Your task to perform on an android device: Open Android settings Image 0: 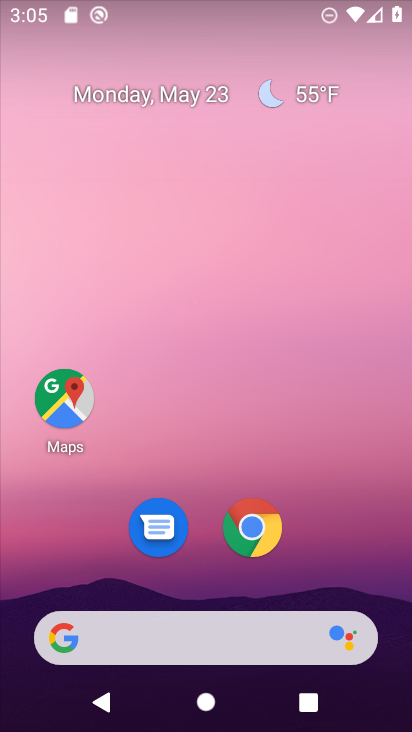
Step 0: drag from (222, 576) to (246, 83)
Your task to perform on an android device: Open Android settings Image 1: 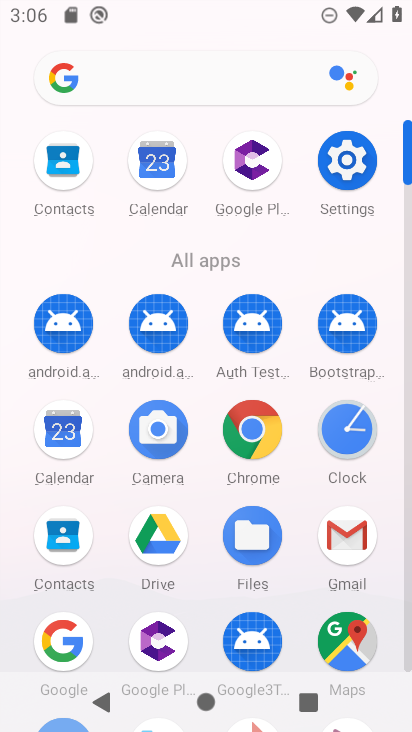
Step 1: click (349, 162)
Your task to perform on an android device: Open Android settings Image 2: 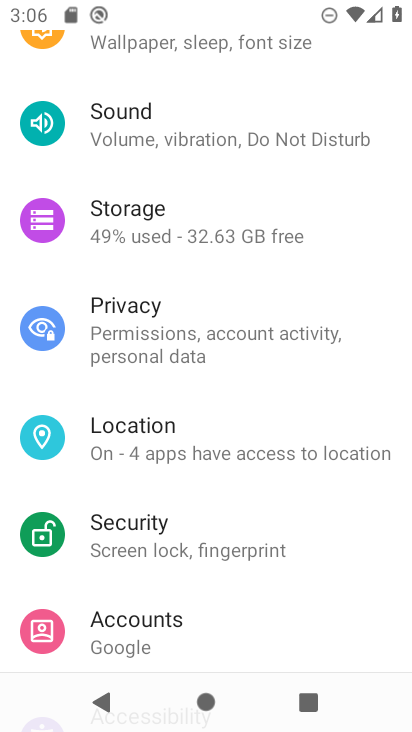
Step 2: drag from (205, 625) to (213, 81)
Your task to perform on an android device: Open Android settings Image 3: 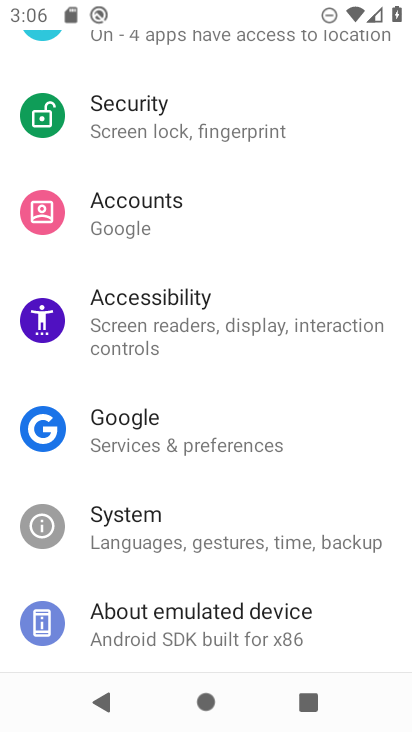
Step 3: click (199, 613)
Your task to perform on an android device: Open Android settings Image 4: 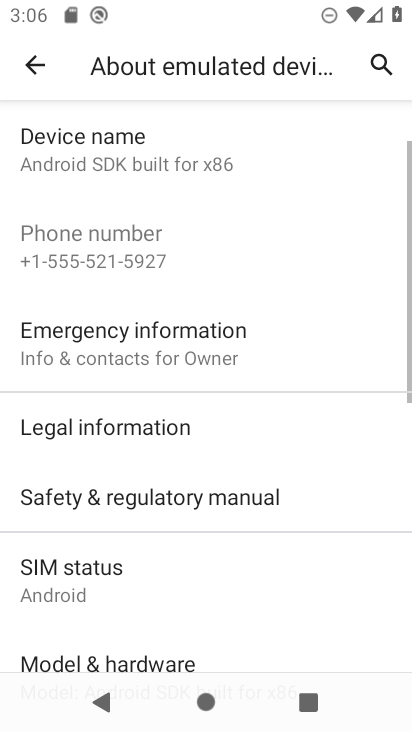
Step 4: task complete